Your task to perform on an android device: Open Chrome and go to settings Image 0: 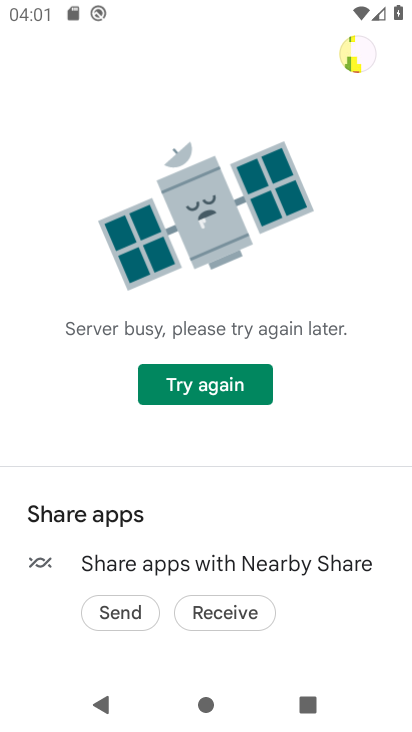
Step 0: press home button
Your task to perform on an android device: Open Chrome and go to settings Image 1: 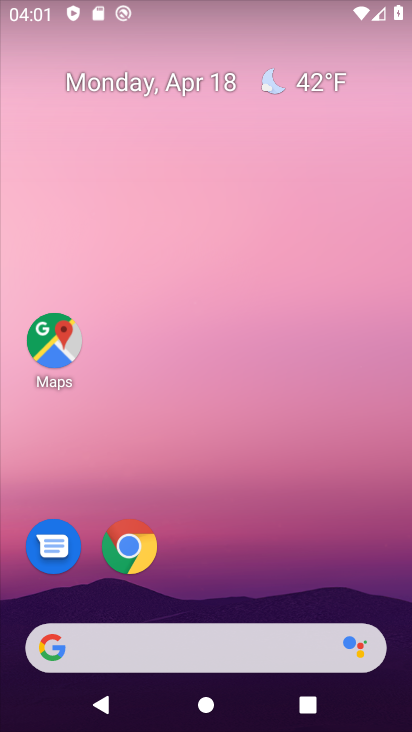
Step 1: drag from (285, 464) to (290, 295)
Your task to perform on an android device: Open Chrome and go to settings Image 2: 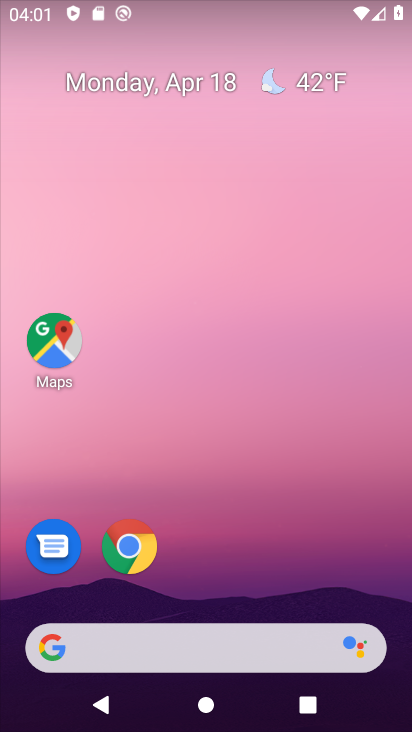
Step 2: drag from (225, 485) to (306, 244)
Your task to perform on an android device: Open Chrome and go to settings Image 3: 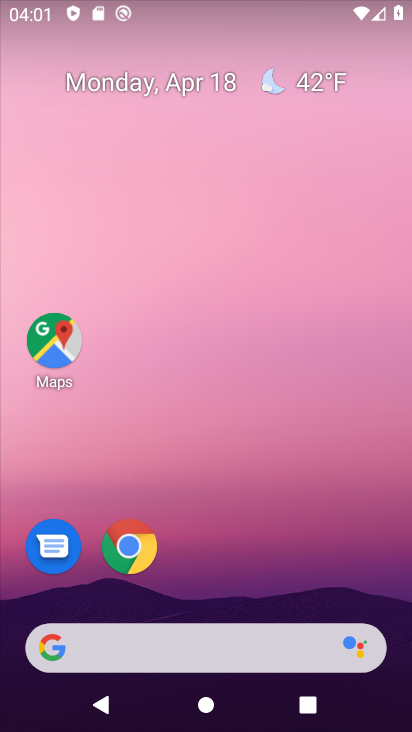
Step 3: drag from (228, 560) to (268, 186)
Your task to perform on an android device: Open Chrome and go to settings Image 4: 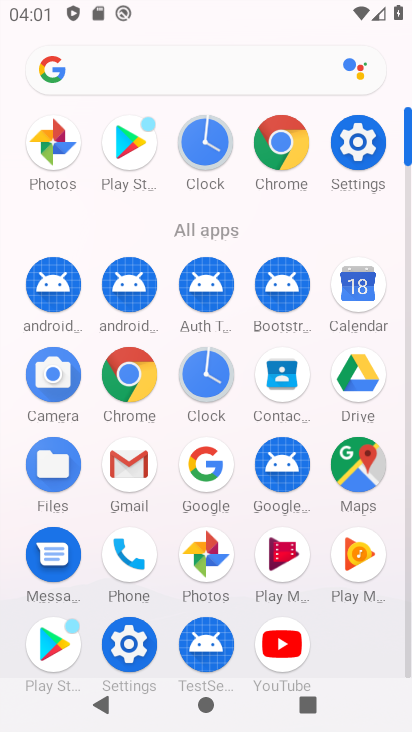
Step 4: click (259, 140)
Your task to perform on an android device: Open Chrome and go to settings Image 5: 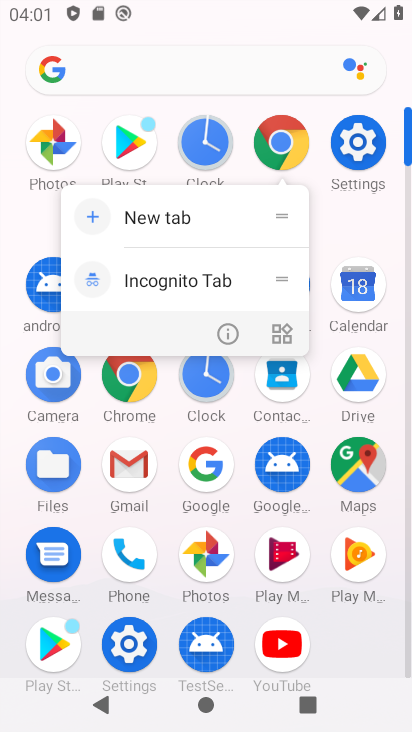
Step 5: click (289, 139)
Your task to perform on an android device: Open Chrome and go to settings Image 6: 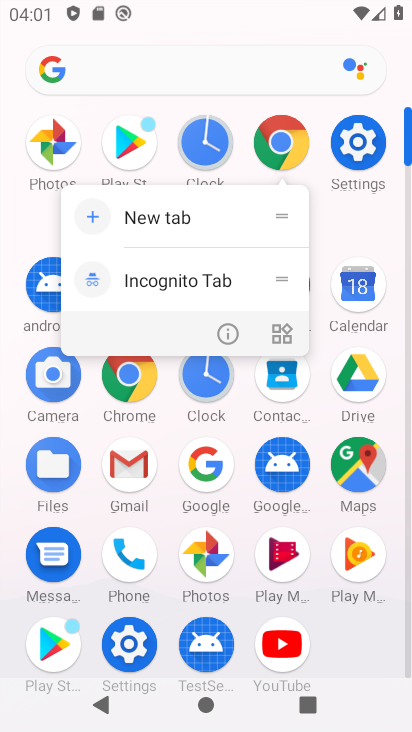
Step 6: click (289, 139)
Your task to perform on an android device: Open Chrome and go to settings Image 7: 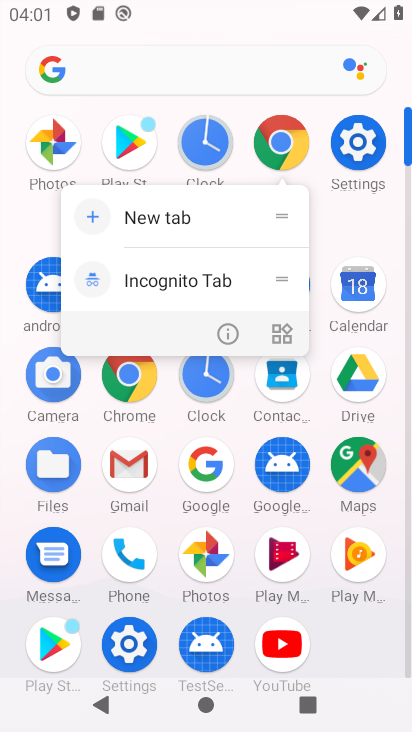
Step 7: click (285, 136)
Your task to perform on an android device: Open Chrome and go to settings Image 8: 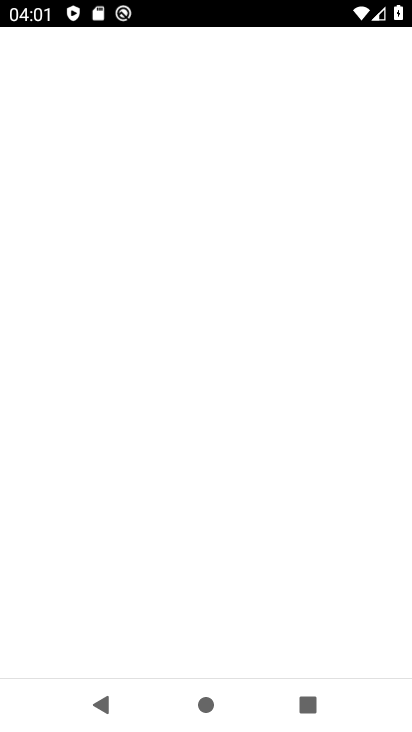
Step 8: click (285, 136)
Your task to perform on an android device: Open Chrome and go to settings Image 9: 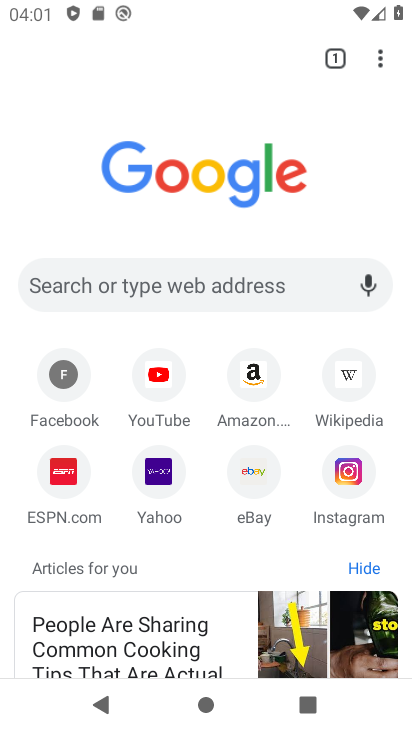
Step 9: click (378, 55)
Your task to perform on an android device: Open Chrome and go to settings Image 10: 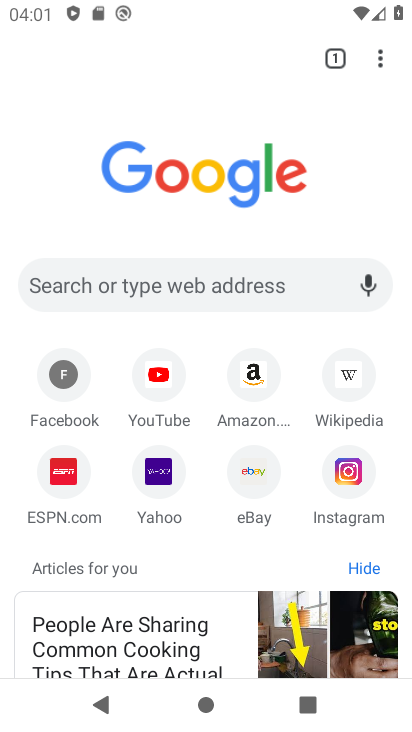
Step 10: click (384, 65)
Your task to perform on an android device: Open Chrome and go to settings Image 11: 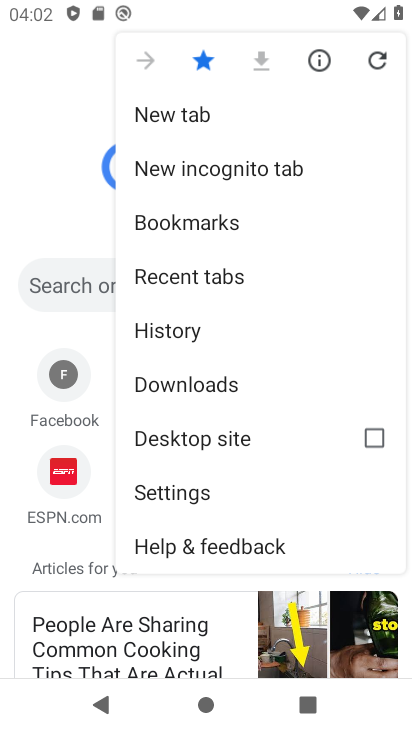
Step 11: click (198, 497)
Your task to perform on an android device: Open Chrome and go to settings Image 12: 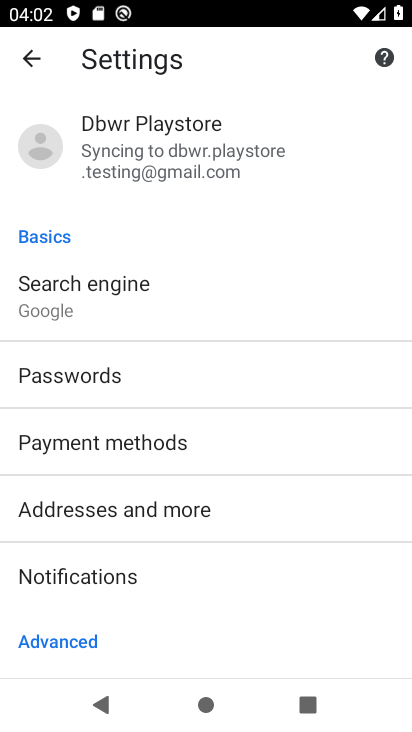
Step 12: task complete